Your task to perform on an android device: Open my contact list Image 0: 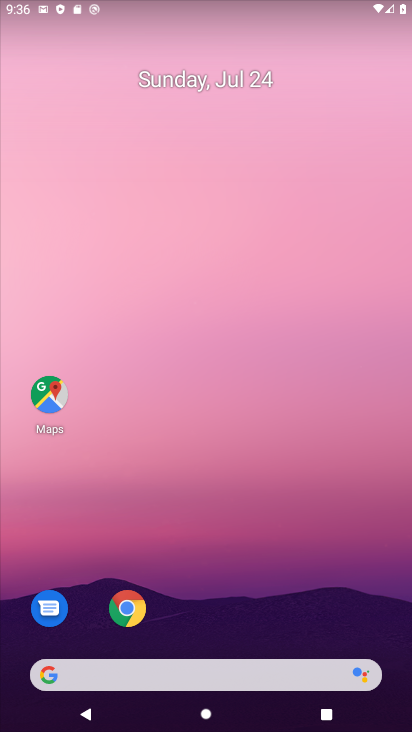
Step 0: press home button
Your task to perform on an android device: Open my contact list Image 1: 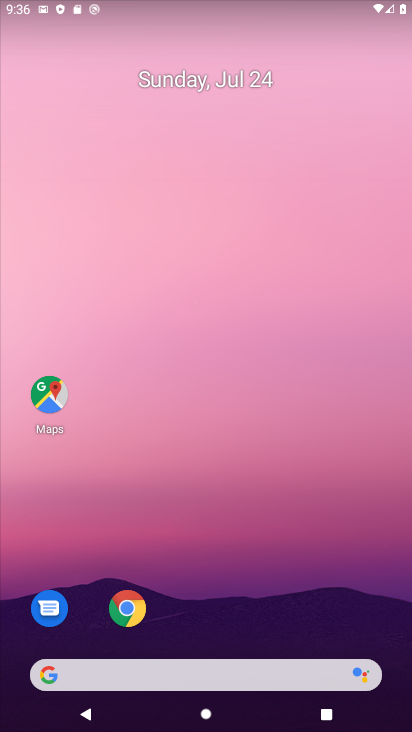
Step 1: drag from (220, 643) to (269, 22)
Your task to perform on an android device: Open my contact list Image 2: 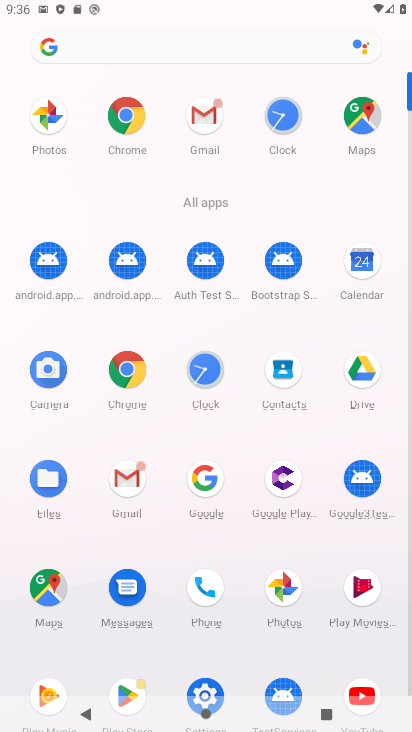
Step 2: click (282, 365)
Your task to perform on an android device: Open my contact list Image 3: 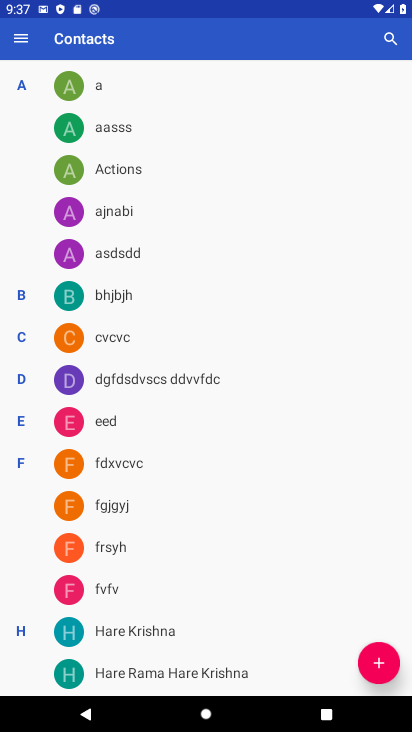
Step 3: task complete